Your task to perform on an android device: check data usage Image 0: 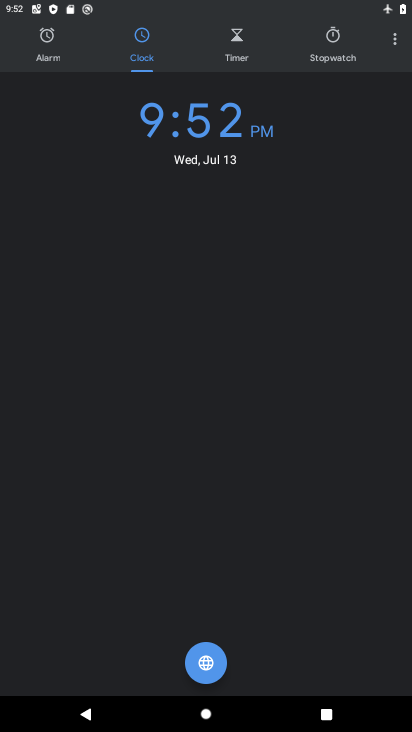
Step 0: press home button
Your task to perform on an android device: check data usage Image 1: 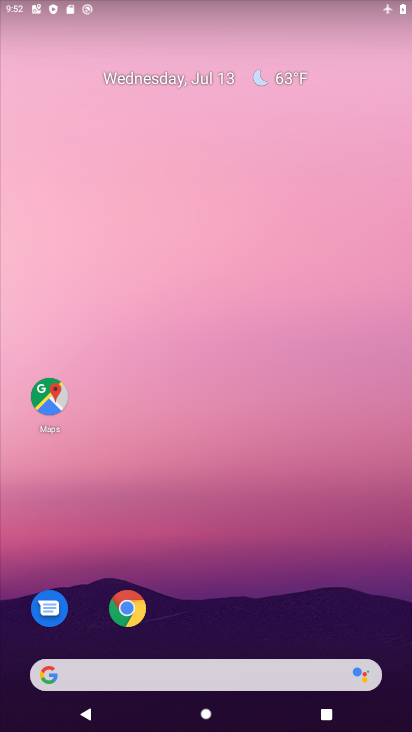
Step 1: drag from (197, 623) to (212, 117)
Your task to perform on an android device: check data usage Image 2: 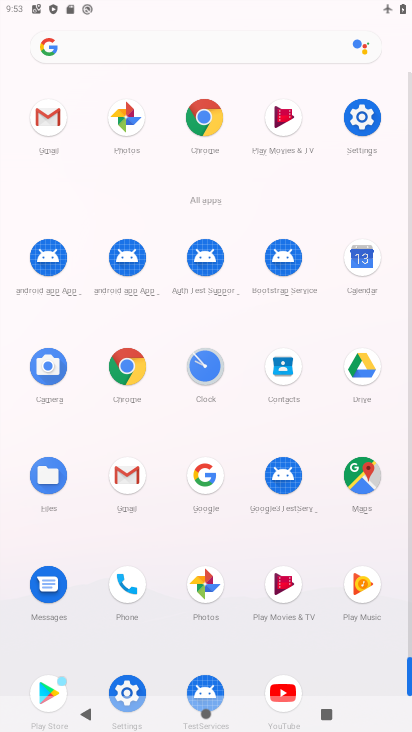
Step 2: drag from (163, 537) to (166, 401)
Your task to perform on an android device: check data usage Image 3: 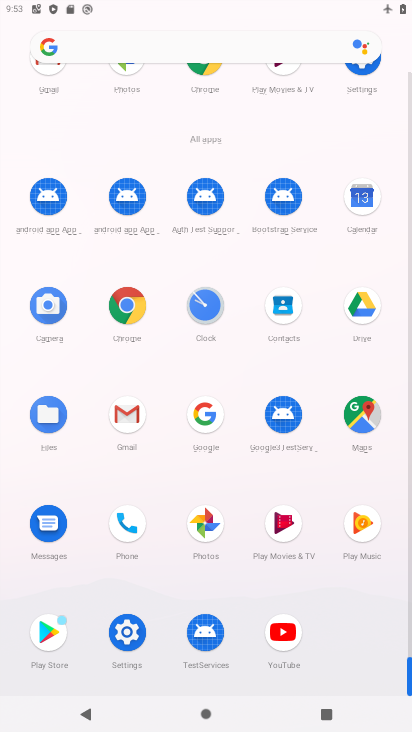
Step 3: click (126, 632)
Your task to perform on an android device: check data usage Image 4: 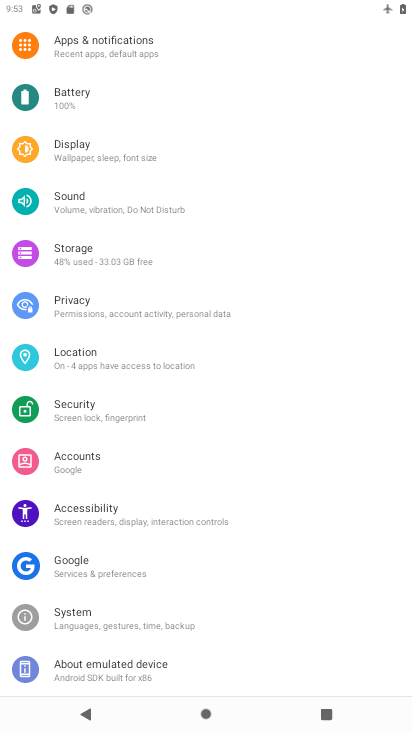
Step 4: drag from (140, 247) to (134, 566)
Your task to perform on an android device: check data usage Image 5: 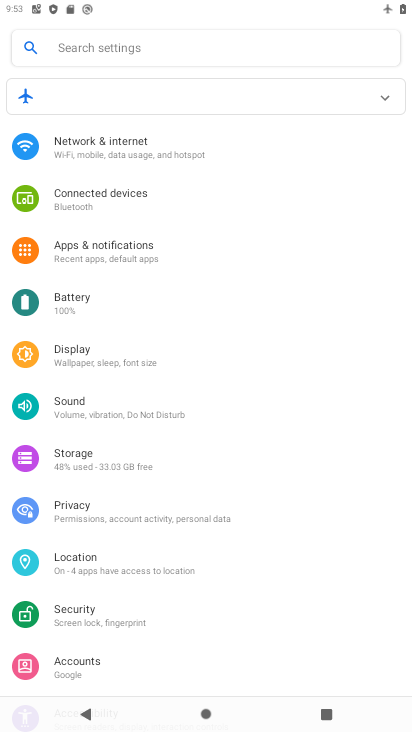
Step 5: click (127, 156)
Your task to perform on an android device: check data usage Image 6: 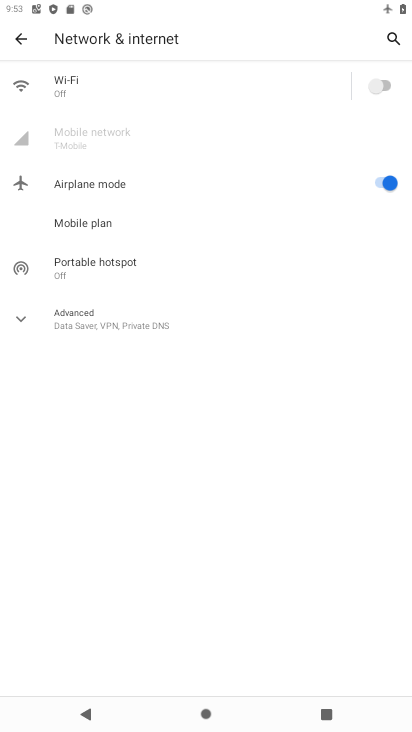
Step 6: click (370, 184)
Your task to perform on an android device: check data usage Image 7: 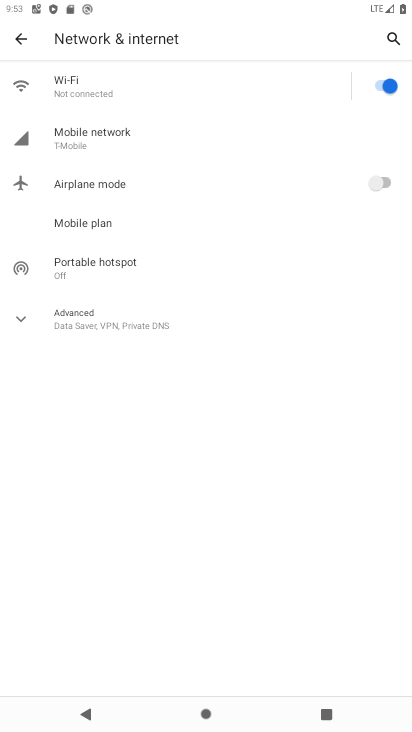
Step 7: click (143, 136)
Your task to perform on an android device: check data usage Image 8: 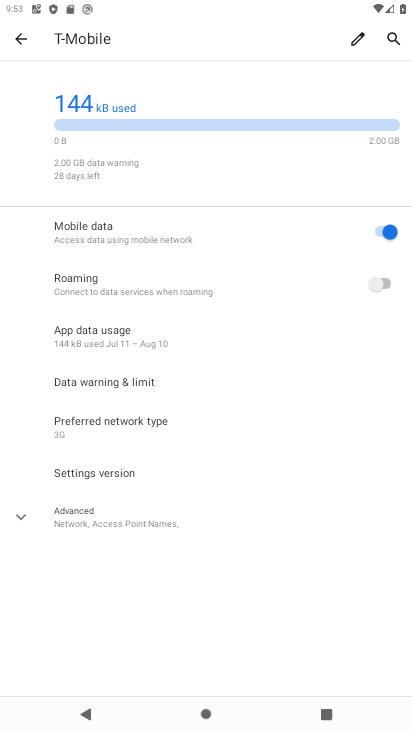
Step 8: click (125, 335)
Your task to perform on an android device: check data usage Image 9: 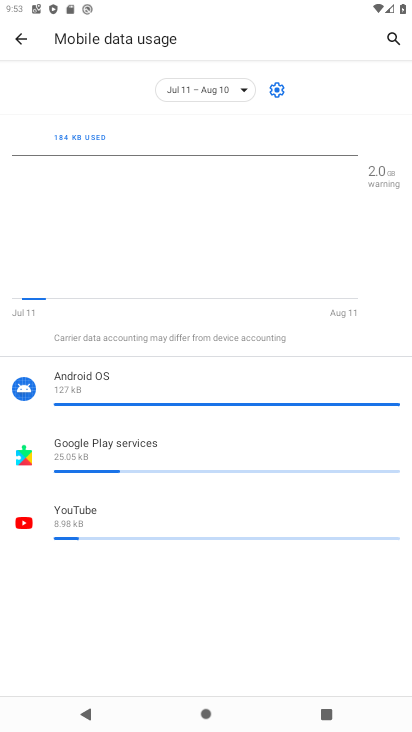
Step 9: task complete